Your task to perform on an android device: visit the assistant section in the google photos Image 0: 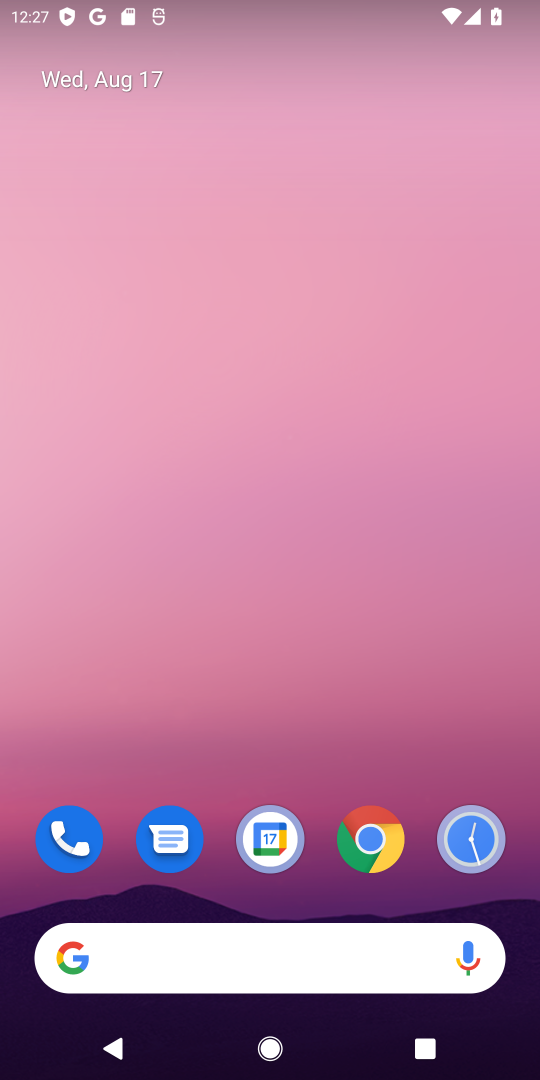
Step 0: drag from (225, 960) to (309, 355)
Your task to perform on an android device: visit the assistant section in the google photos Image 1: 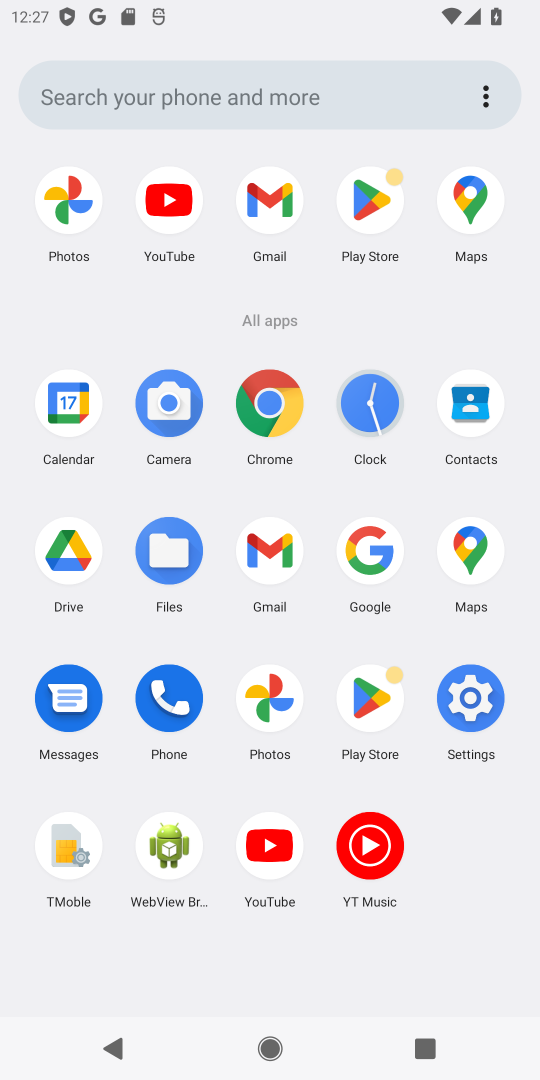
Step 1: click (268, 699)
Your task to perform on an android device: visit the assistant section in the google photos Image 2: 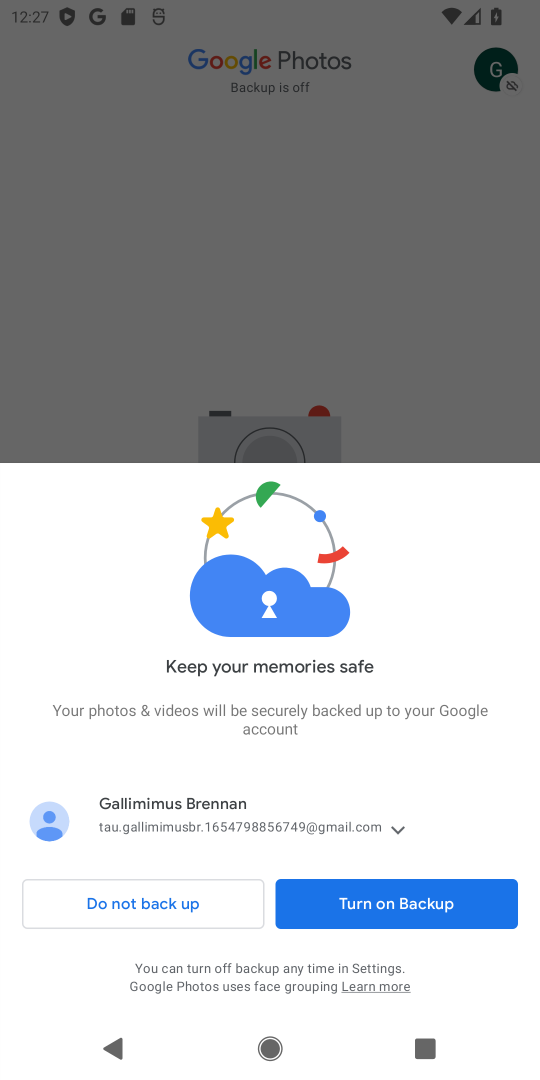
Step 2: click (370, 906)
Your task to perform on an android device: visit the assistant section in the google photos Image 3: 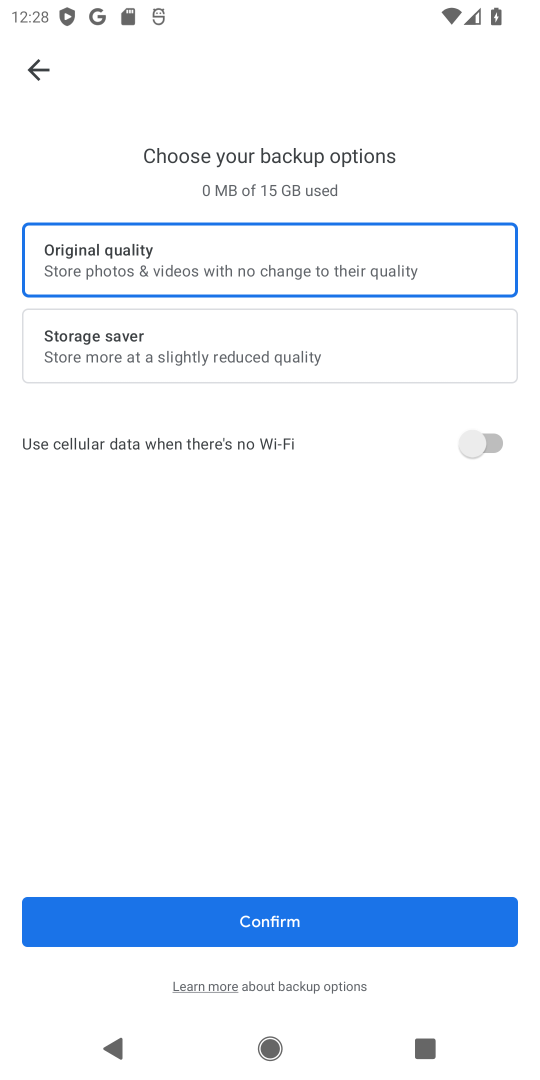
Step 3: click (282, 926)
Your task to perform on an android device: visit the assistant section in the google photos Image 4: 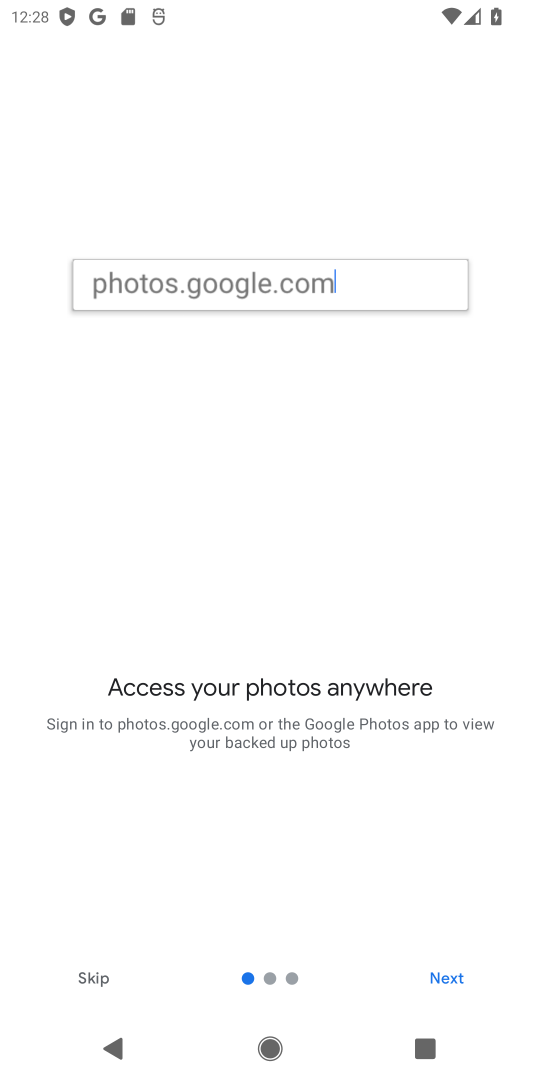
Step 4: click (445, 986)
Your task to perform on an android device: visit the assistant section in the google photos Image 5: 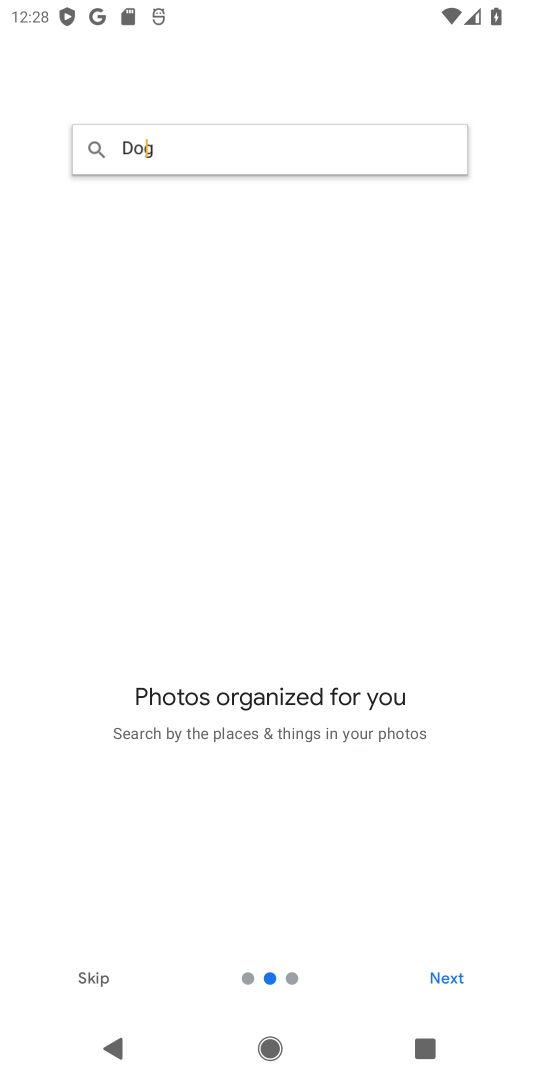
Step 5: click (445, 986)
Your task to perform on an android device: visit the assistant section in the google photos Image 6: 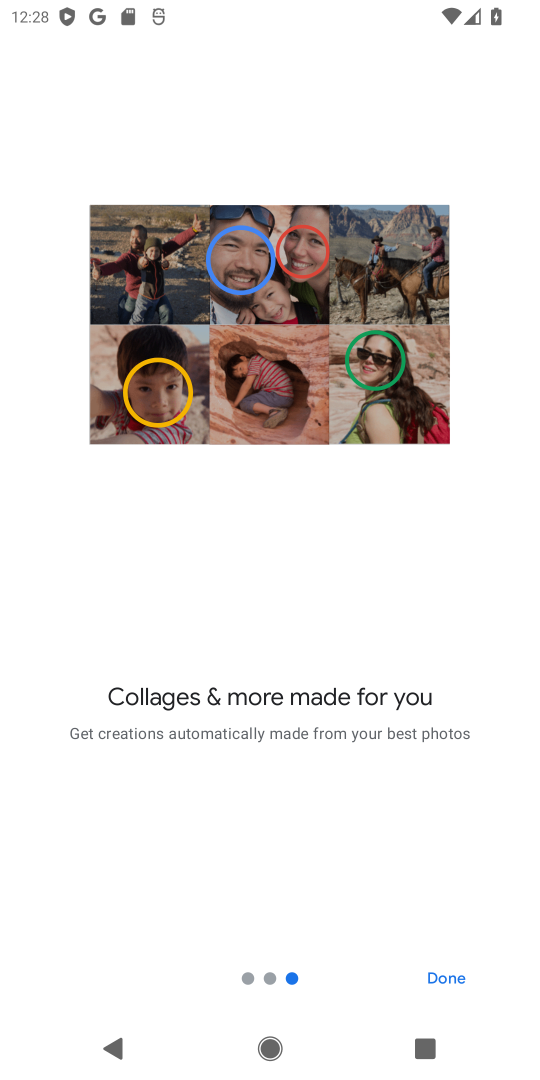
Step 6: click (445, 986)
Your task to perform on an android device: visit the assistant section in the google photos Image 7: 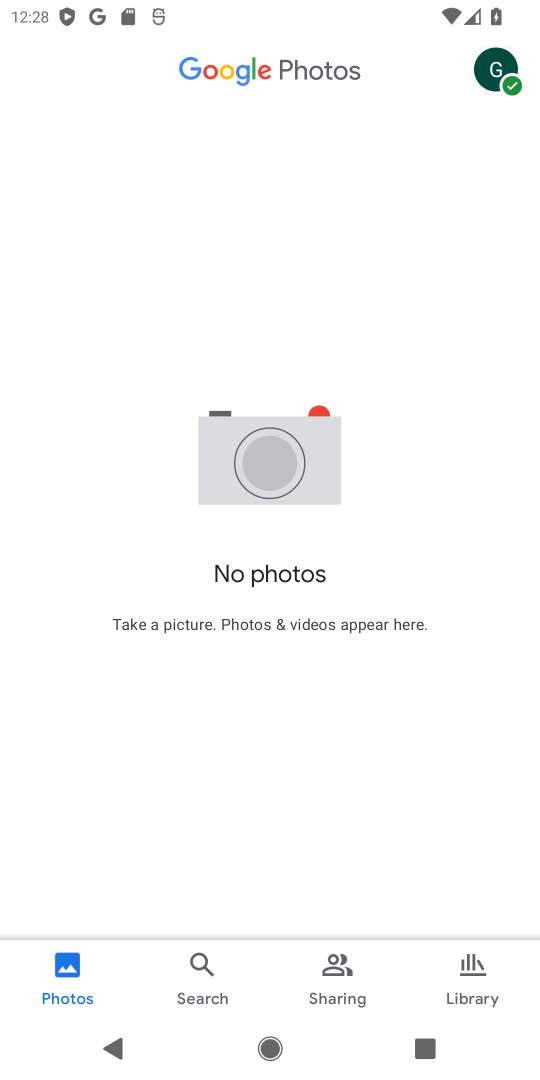
Step 7: click (477, 969)
Your task to perform on an android device: visit the assistant section in the google photos Image 8: 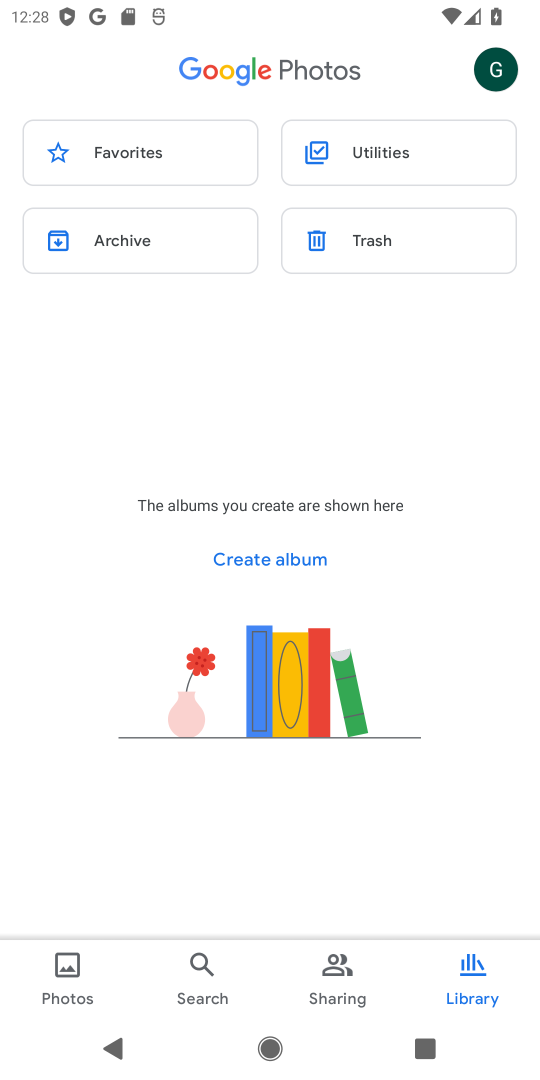
Step 8: click (364, 241)
Your task to perform on an android device: visit the assistant section in the google photos Image 9: 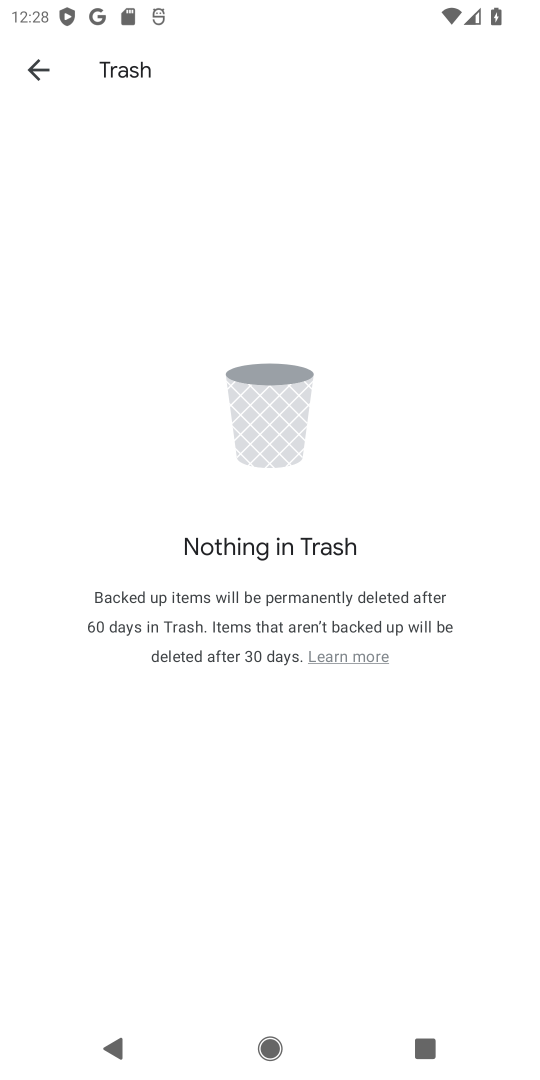
Step 9: press back button
Your task to perform on an android device: visit the assistant section in the google photos Image 10: 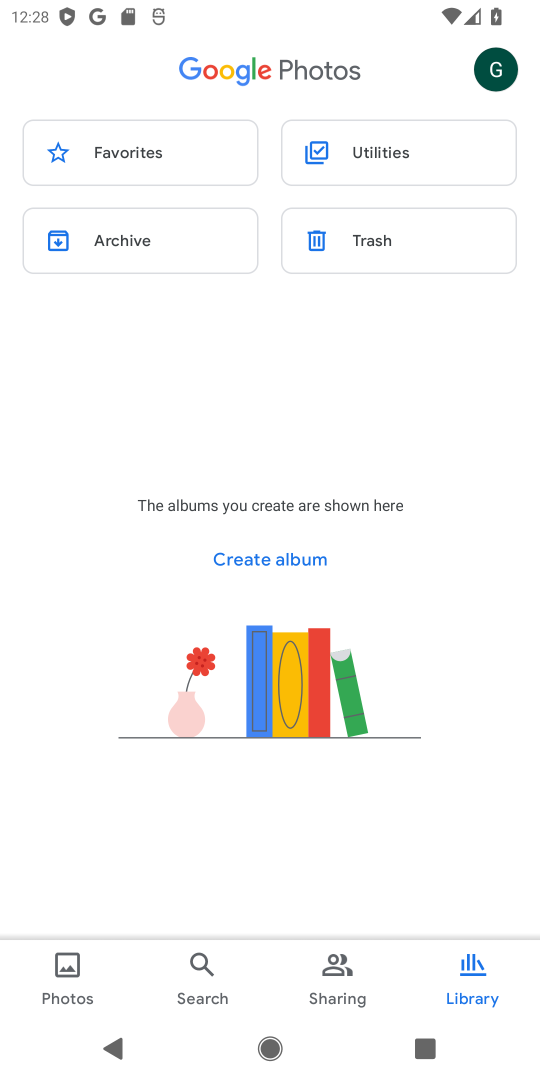
Step 10: click (376, 162)
Your task to perform on an android device: visit the assistant section in the google photos Image 11: 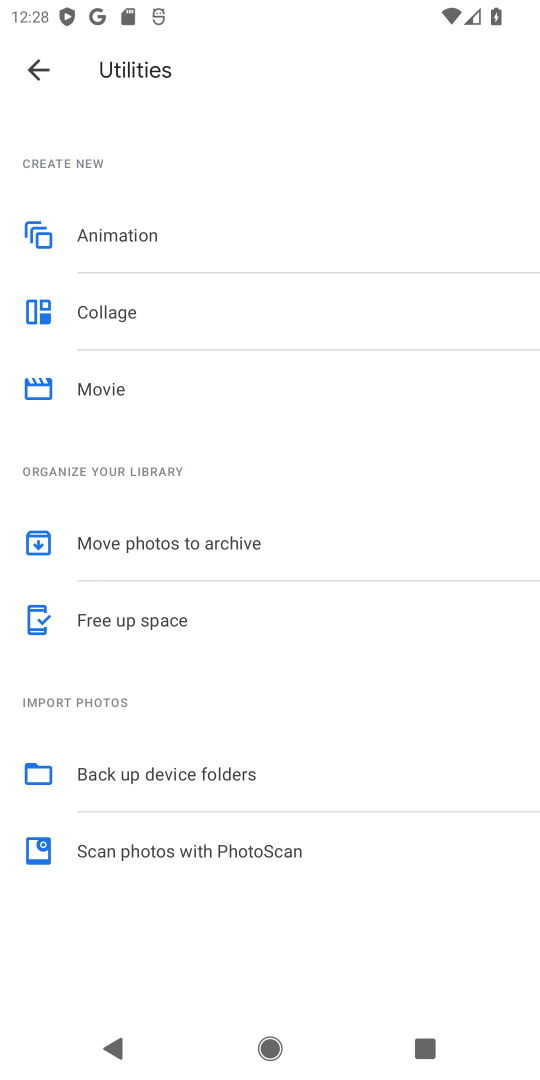
Step 11: press back button
Your task to perform on an android device: visit the assistant section in the google photos Image 12: 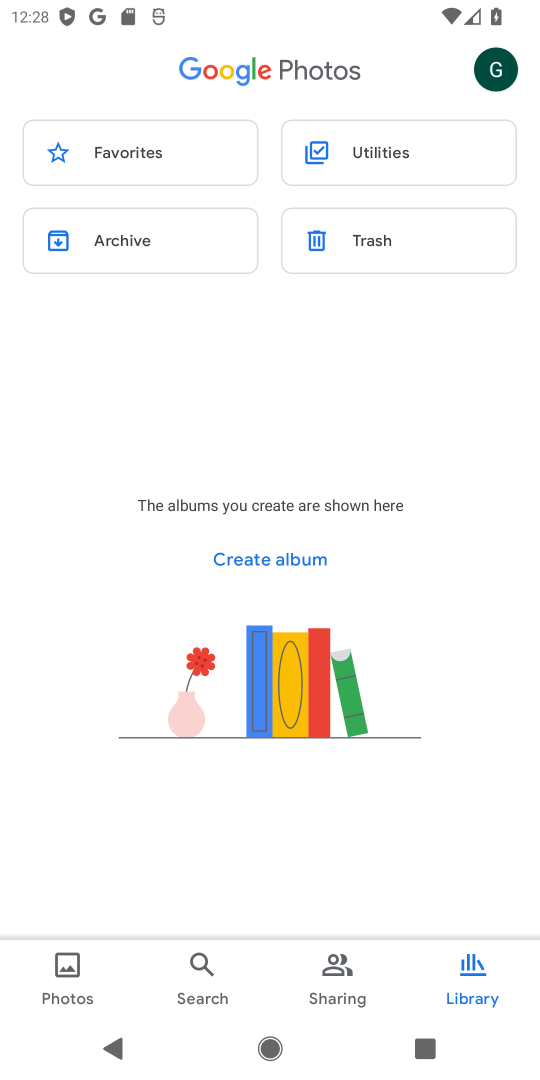
Step 12: click (149, 156)
Your task to perform on an android device: visit the assistant section in the google photos Image 13: 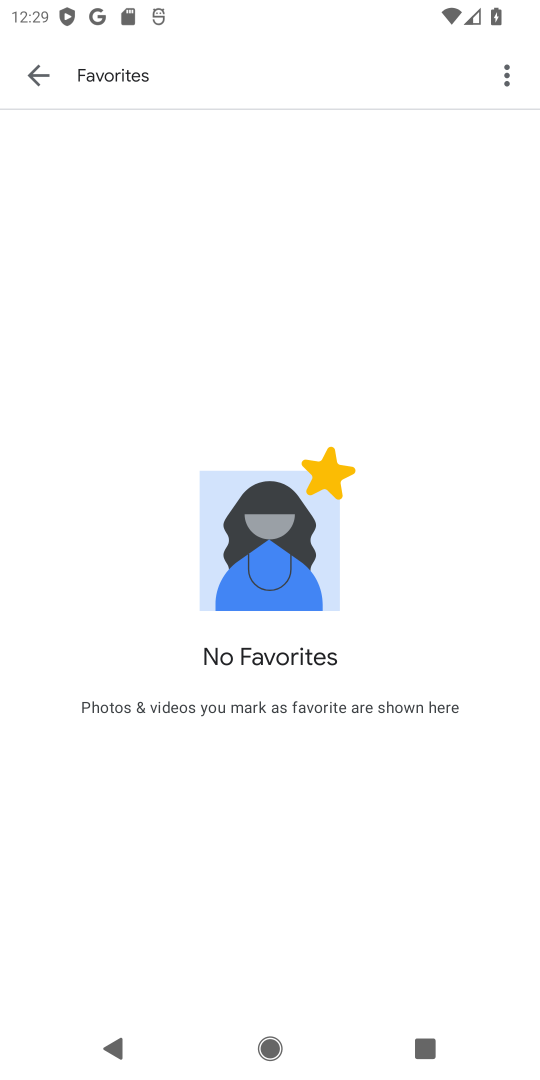
Step 13: press back button
Your task to perform on an android device: visit the assistant section in the google photos Image 14: 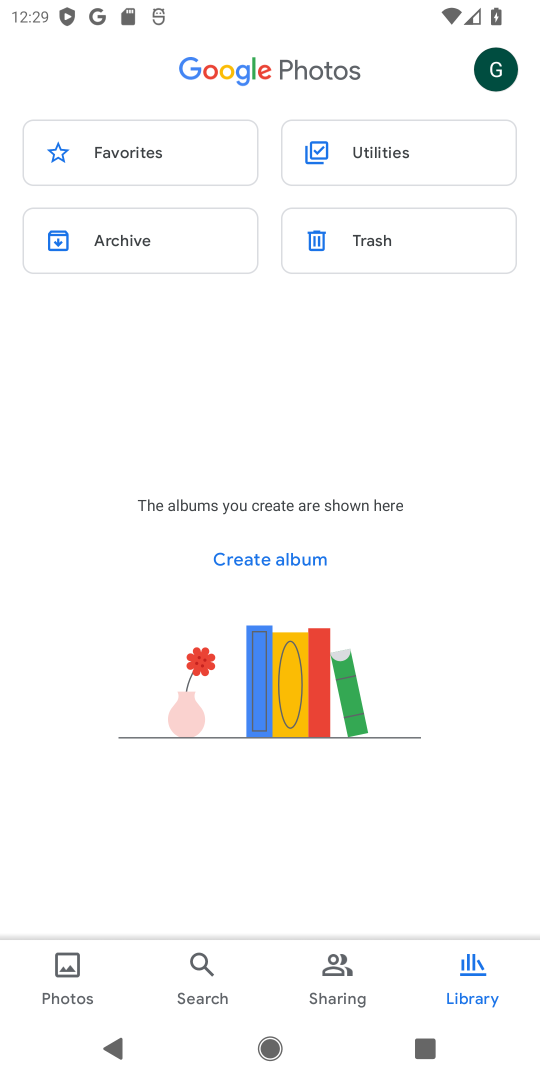
Step 14: click (161, 238)
Your task to perform on an android device: visit the assistant section in the google photos Image 15: 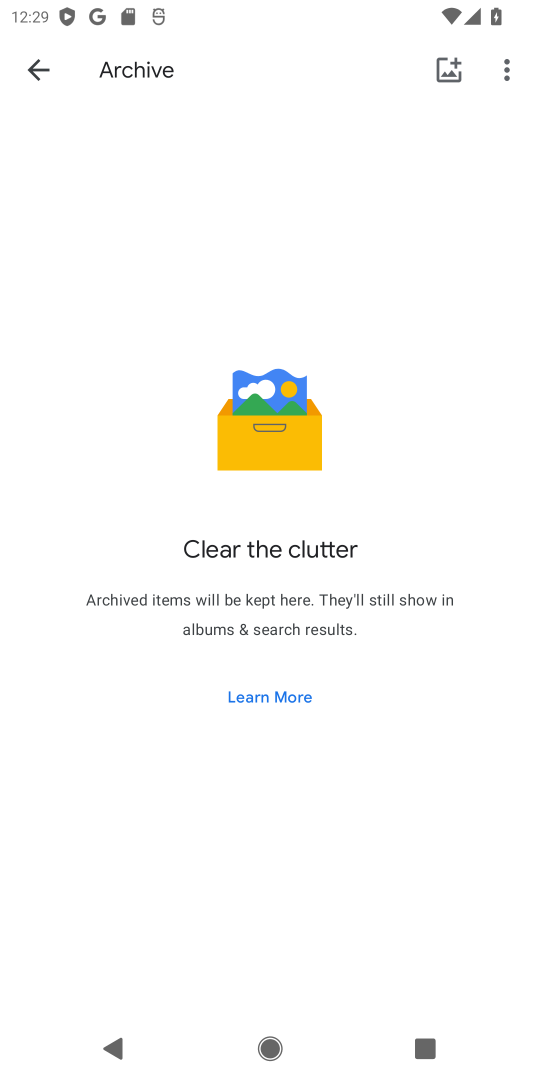
Step 15: task complete